Your task to perform on an android device: Open Wikipedia Image 0: 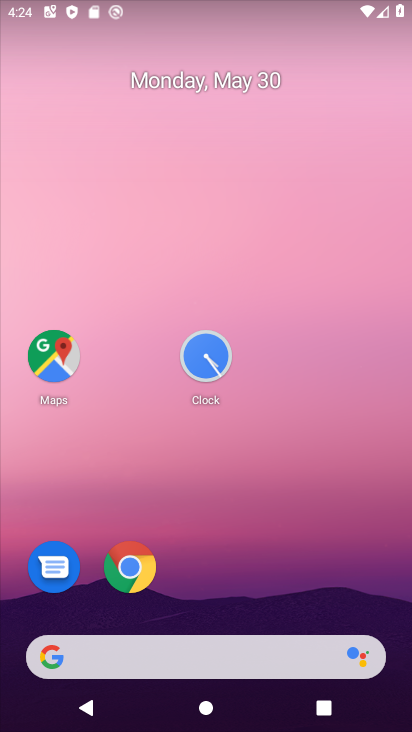
Step 0: drag from (274, 608) to (253, 130)
Your task to perform on an android device: Open Wikipedia Image 1: 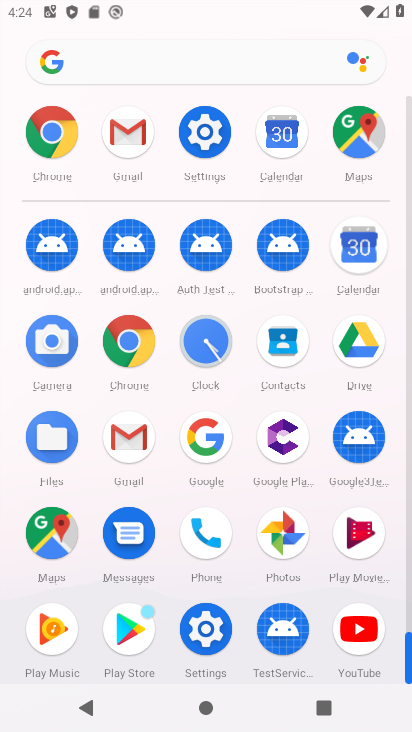
Step 1: click (62, 132)
Your task to perform on an android device: Open Wikipedia Image 2: 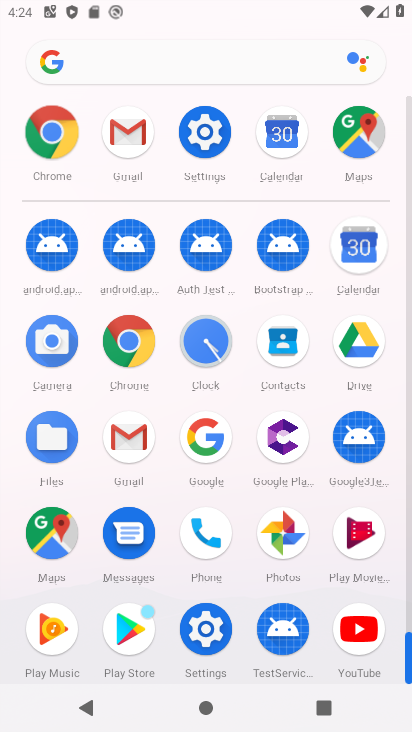
Step 2: click (62, 132)
Your task to perform on an android device: Open Wikipedia Image 3: 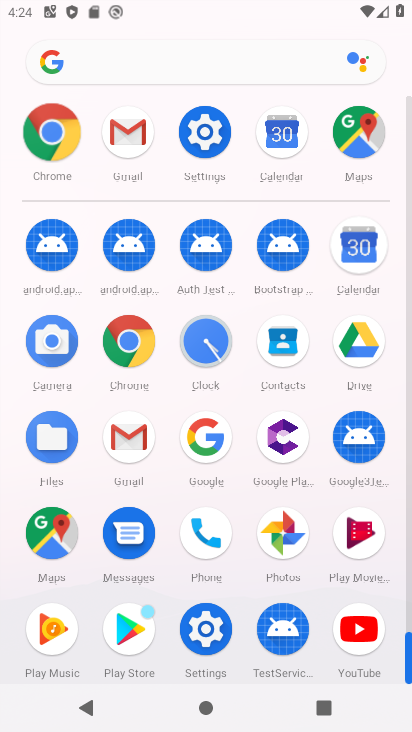
Step 3: click (62, 132)
Your task to perform on an android device: Open Wikipedia Image 4: 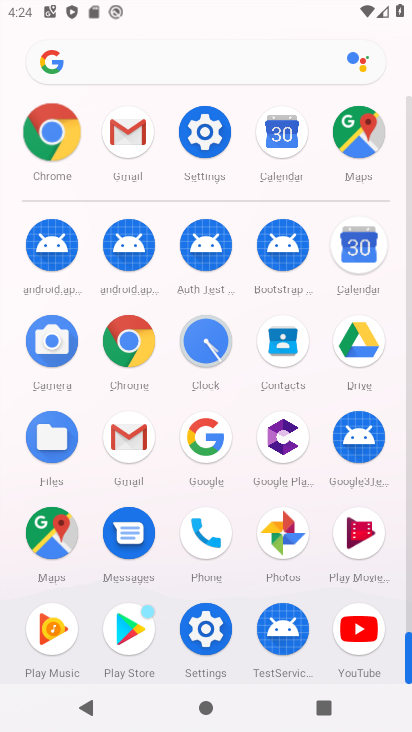
Step 4: click (61, 132)
Your task to perform on an android device: Open Wikipedia Image 5: 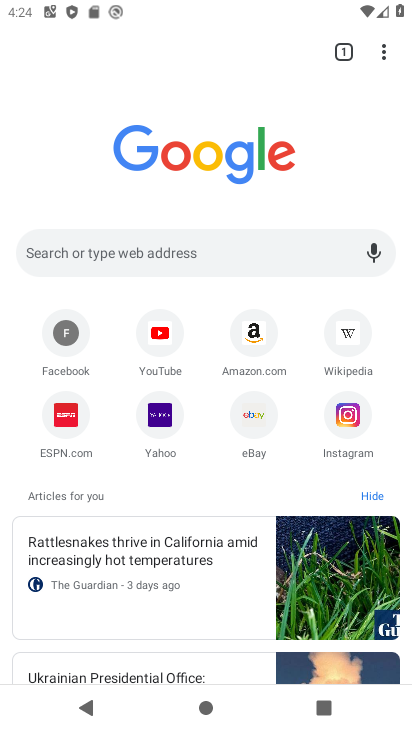
Step 5: click (59, 132)
Your task to perform on an android device: Open Wikipedia Image 6: 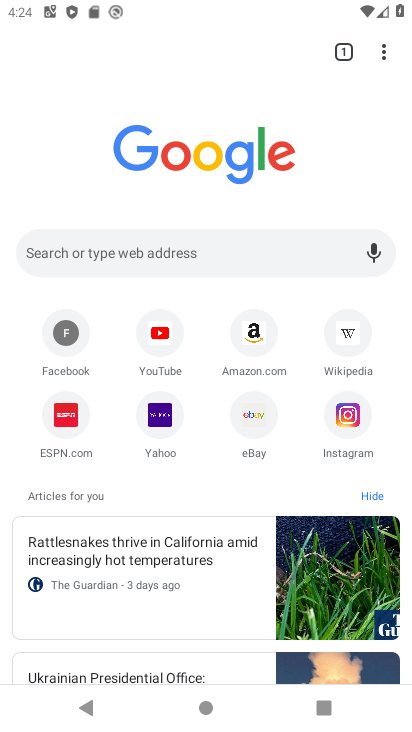
Step 6: click (348, 333)
Your task to perform on an android device: Open Wikipedia Image 7: 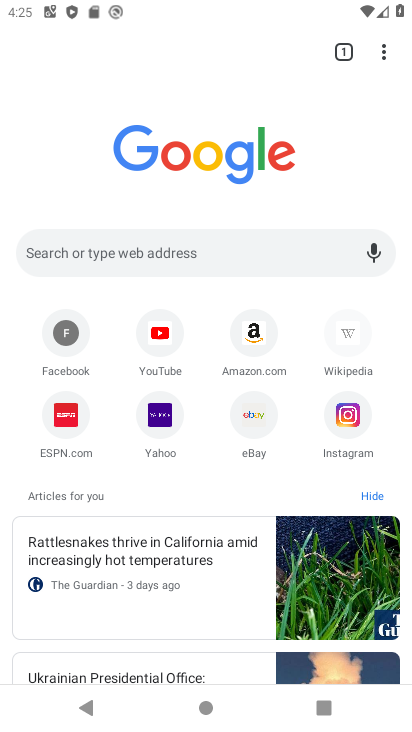
Step 7: click (349, 332)
Your task to perform on an android device: Open Wikipedia Image 8: 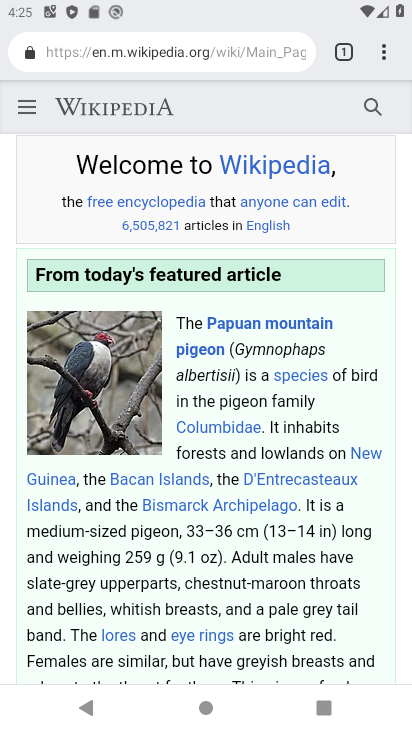
Step 8: task complete